Your task to perform on an android device: Go to location settings Image 0: 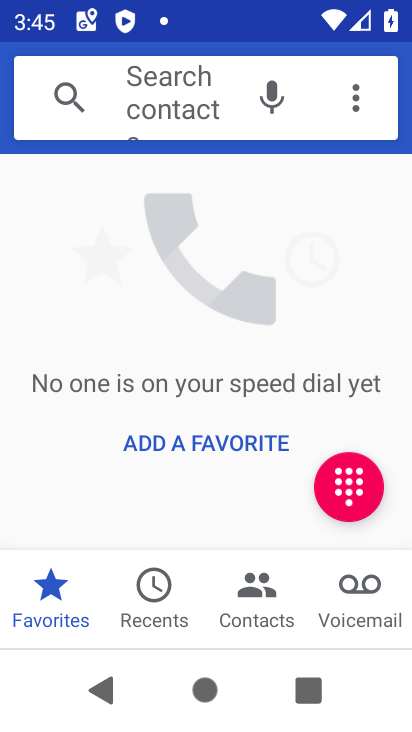
Step 0: task impossible